Your task to perform on an android device: What's the weather going to be tomorrow? Image 0: 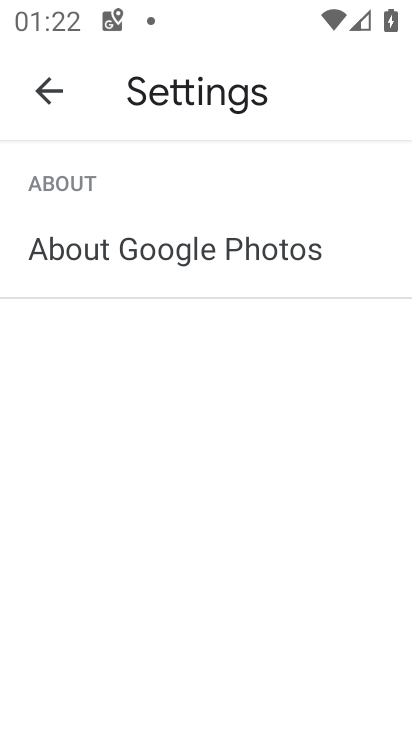
Step 0: click (44, 80)
Your task to perform on an android device: What's the weather going to be tomorrow? Image 1: 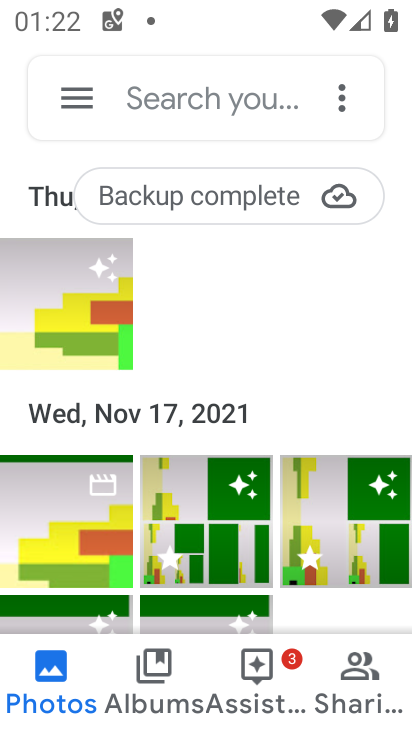
Step 1: press home button
Your task to perform on an android device: What's the weather going to be tomorrow? Image 2: 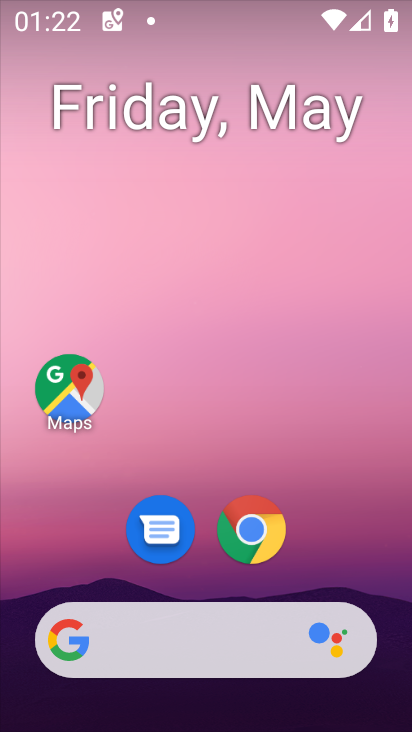
Step 2: drag from (327, 539) to (302, 168)
Your task to perform on an android device: What's the weather going to be tomorrow? Image 3: 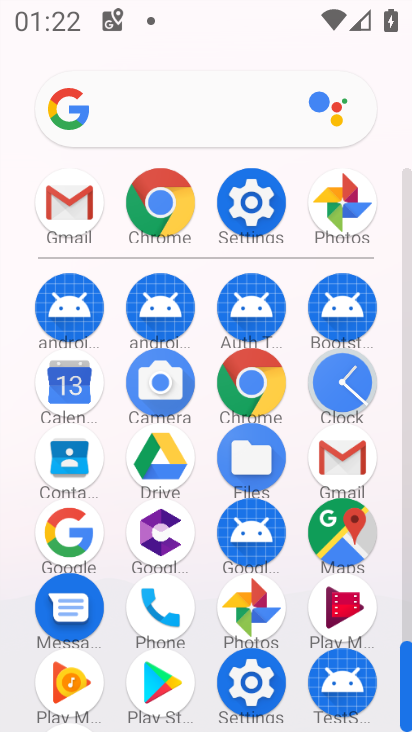
Step 3: click (329, 539)
Your task to perform on an android device: What's the weather going to be tomorrow? Image 4: 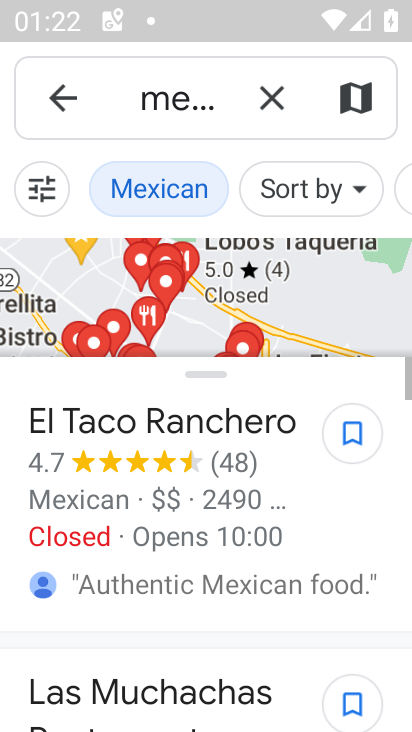
Step 4: press home button
Your task to perform on an android device: What's the weather going to be tomorrow? Image 5: 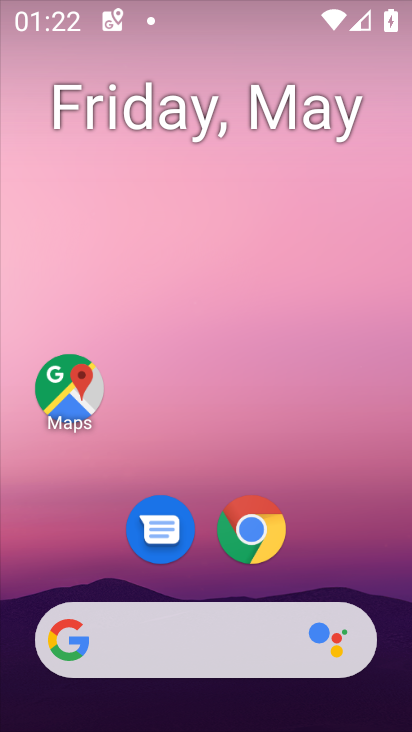
Step 5: drag from (315, 401) to (313, 271)
Your task to perform on an android device: What's the weather going to be tomorrow? Image 6: 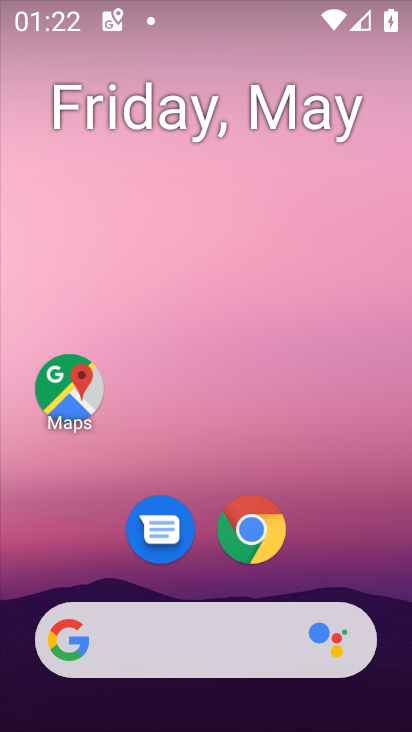
Step 6: click (245, 538)
Your task to perform on an android device: What's the weather going to be tomorrow? Image 7: 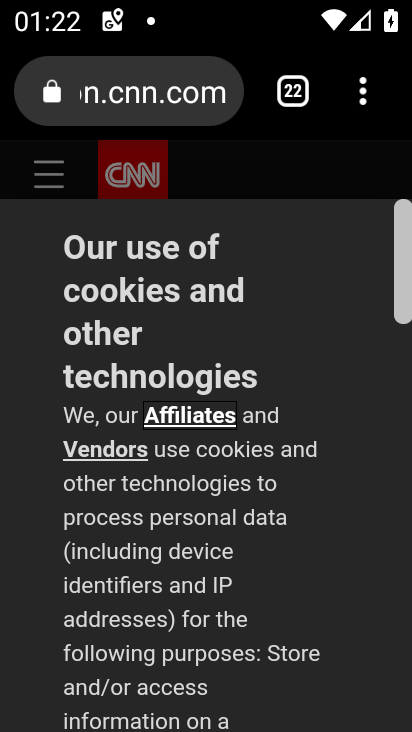
Step 7: click (350, 91)
Your task to perform on an android device: What's the weather going to be tomorrow? Image 8: 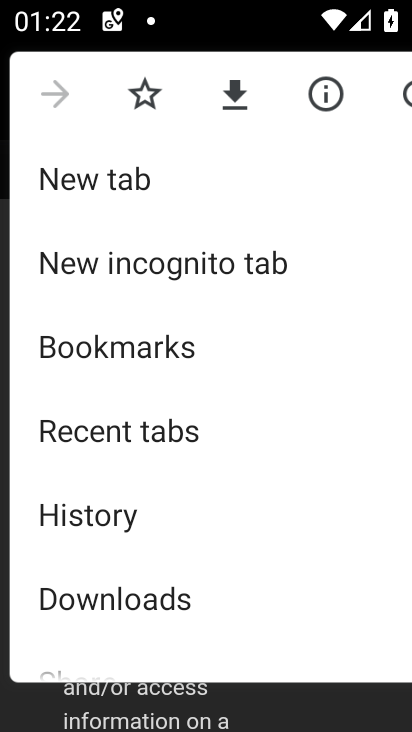
Step 8: click (162, 166)
Your task to perform on an android device: What's the weather going to be tomorrow? Image 9: 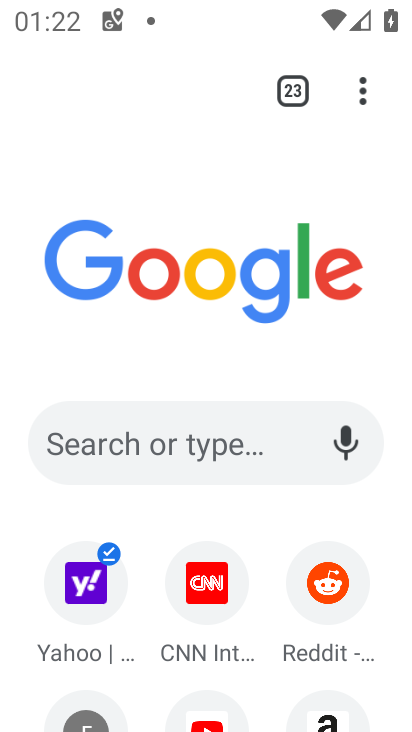
Step 9: click (263, 435)
Your task to perform on an android device: What's the weather going to be tomorrow? Image 10: 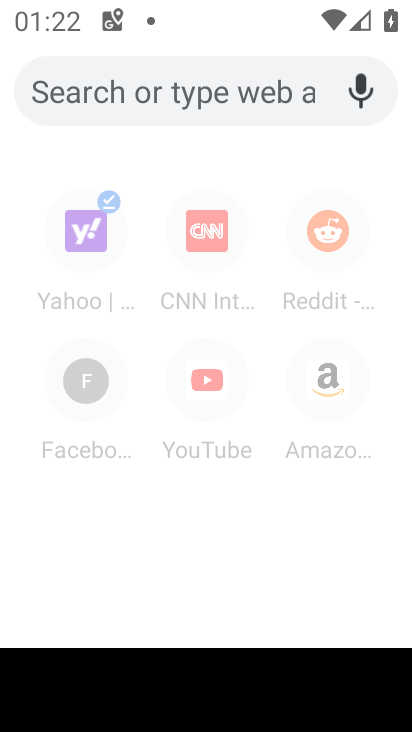
Step 10: click (203, 98)
Your task to perform on an android device: What's the weather going to be tomorrow? Image 11: 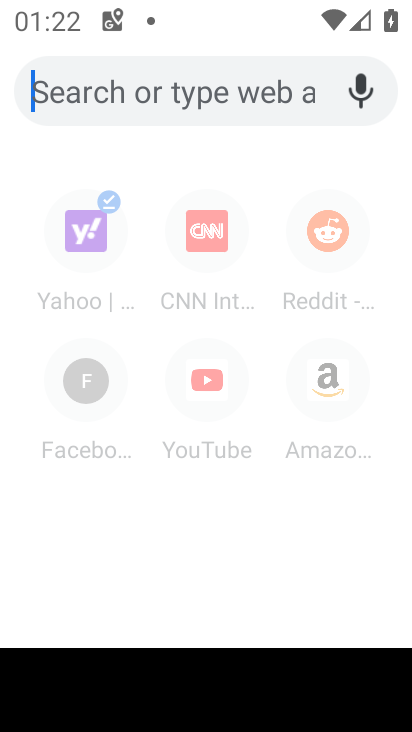
Step 11: type "What's the weather going to be tomorrow?"
Your task to perform on an android device: What's the weather going to be tomorrow? Image 12: 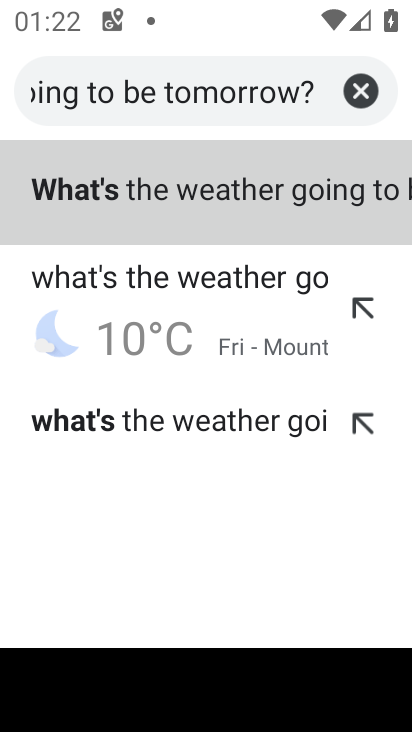
Step 12: click (252, 181)
Your task to perform on an android device: What's the weather going to be tomorrow? Image 13: 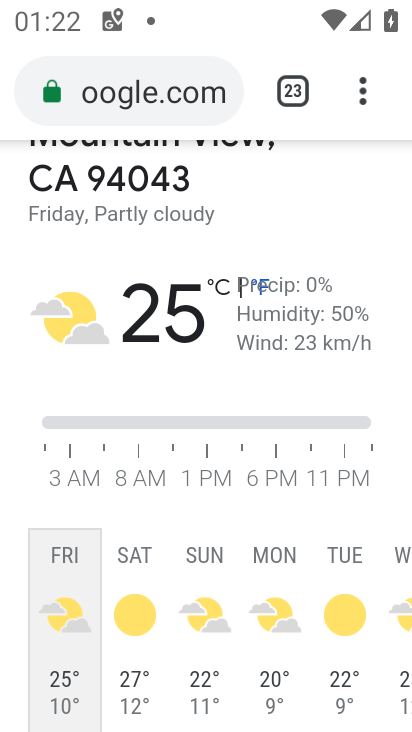
Step 13: task complete